Your task to perform on an android device: change alarm snooze length Image 0: 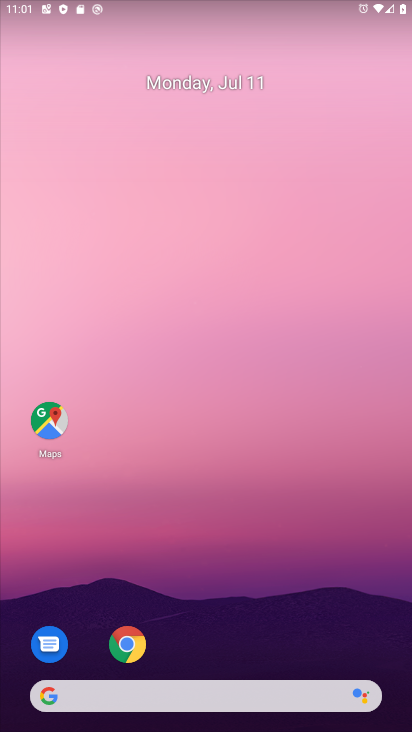
Step 0: drag from (216, 656) to (222, 43)
Your task to perform on an android device: change alarm snooze length Image 1: 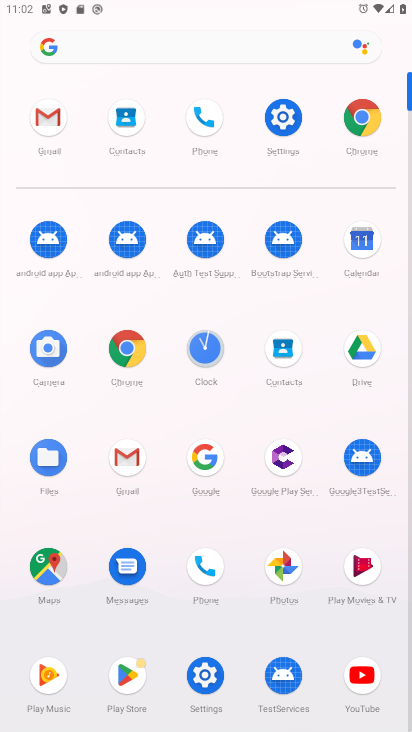
Step 1: click (205, 339)
Your task to perform on an android device: change alarm snooze length Image 2: 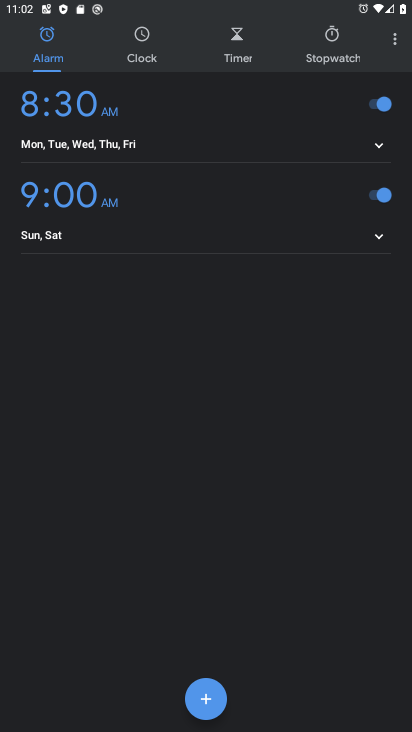
Step 2: click (392, 43)
Your task to perform on an android device: change alarm snooze length Image 3: 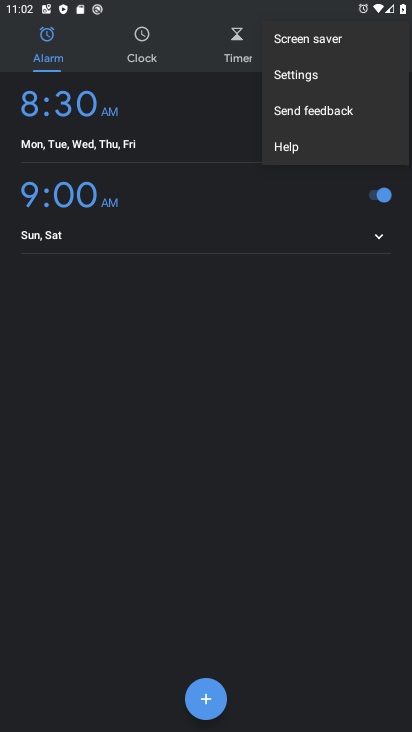
Step 3: click (326, 78)
Your task to perform on an android device: change alarm snooze length Image 4: 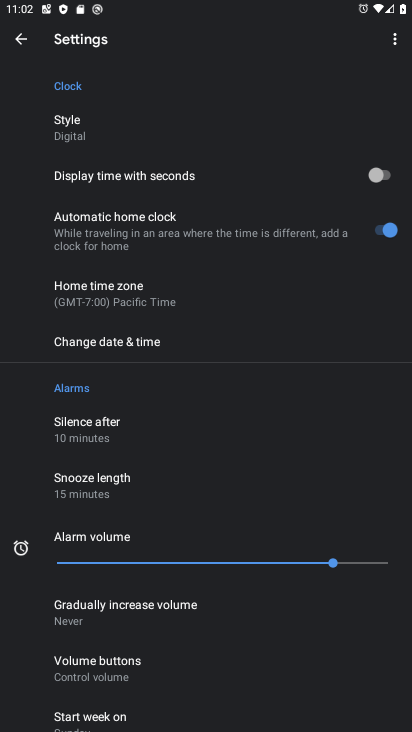
Step 4: click (148, 477)
Your task to perform on an android device: change alarm snooze length Image 5: 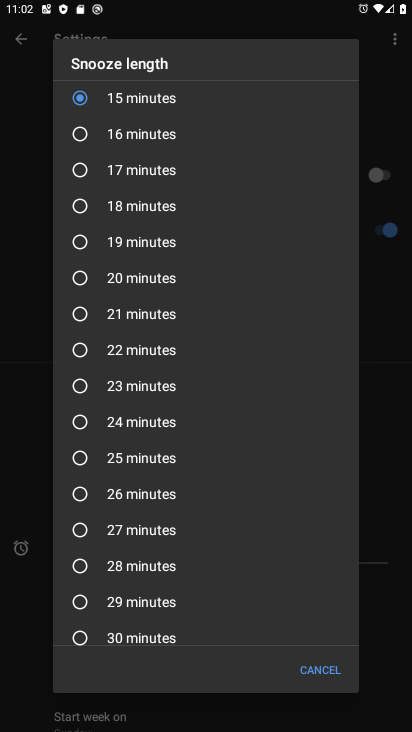
Step 5: drag from (147, 185) to (113, 647)
Your task to perform on an android device: change alarm snooze length Image 6: 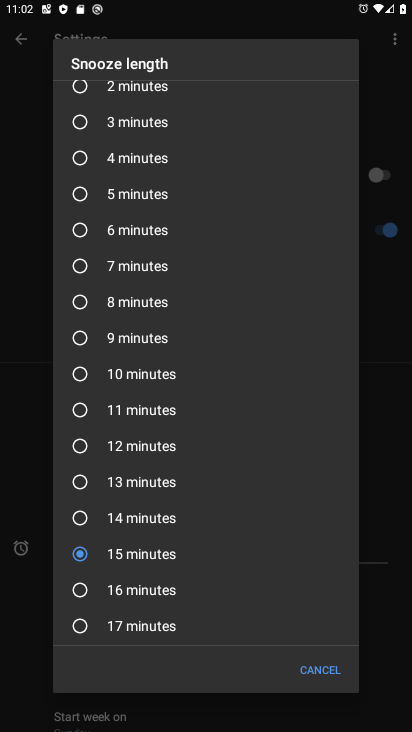
Step 6: click (81, 264)
Your task to perform on an android device: change alarm snooze length Image 7: 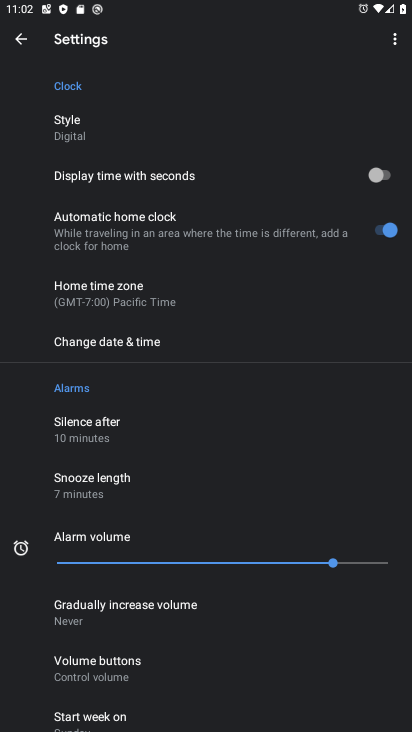
Step 7: task complete